Your task to perform on an android device: Open network settings Image 0: 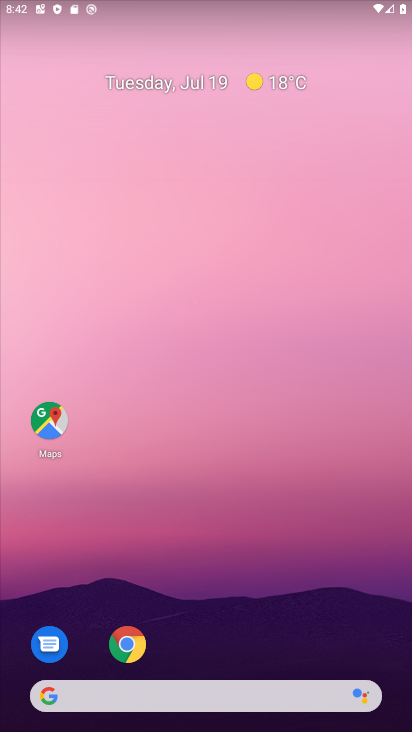
Step 0: drag from (214, 730) to (209, 198)
Your task to perform on an android device: Open network settings Image 1: 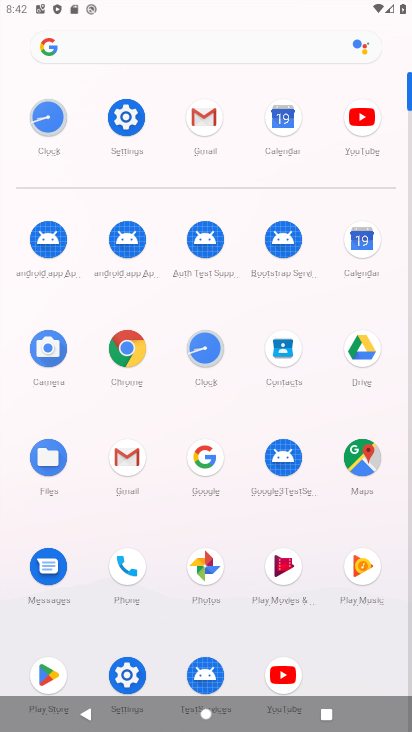
Step 1: click (123, 123)
Your task to perform on an android device: Open network settings Image 2: 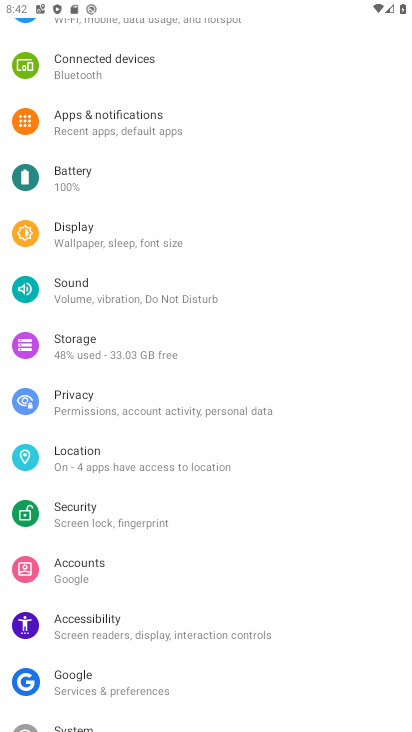
Step 2: drag from (74, 109) to (135, 503)
Your task to perform on an android device: Open network settings Image 3: 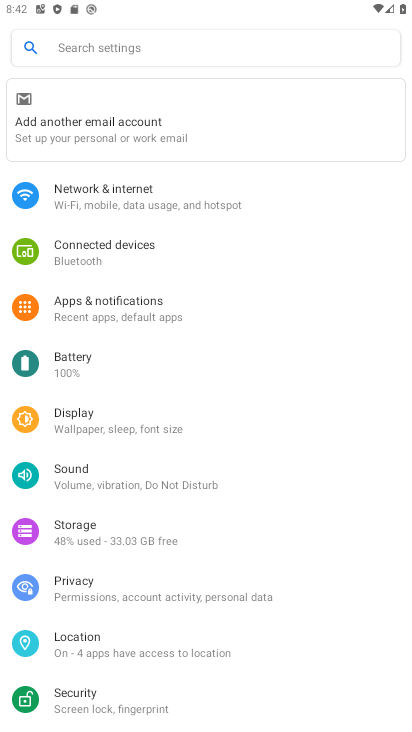
Step 3: click (130, 198)
Your task to perform on an android device: Open network settings Image 4: 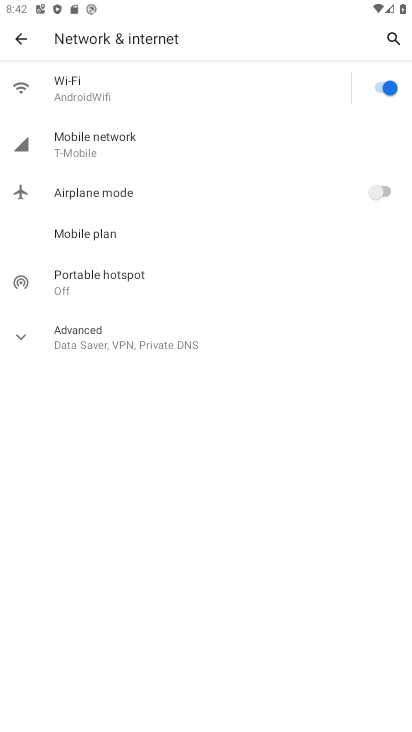
Step 4: click (84, 143)
Your task to perform on an android device: Open network settings Image 5: 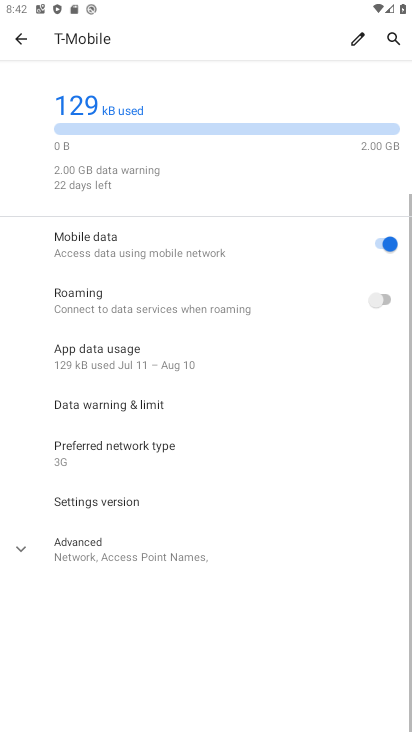
Step 5: task complete